Your task to perform on an android device: see sites visited before in the chrome app Image 0: 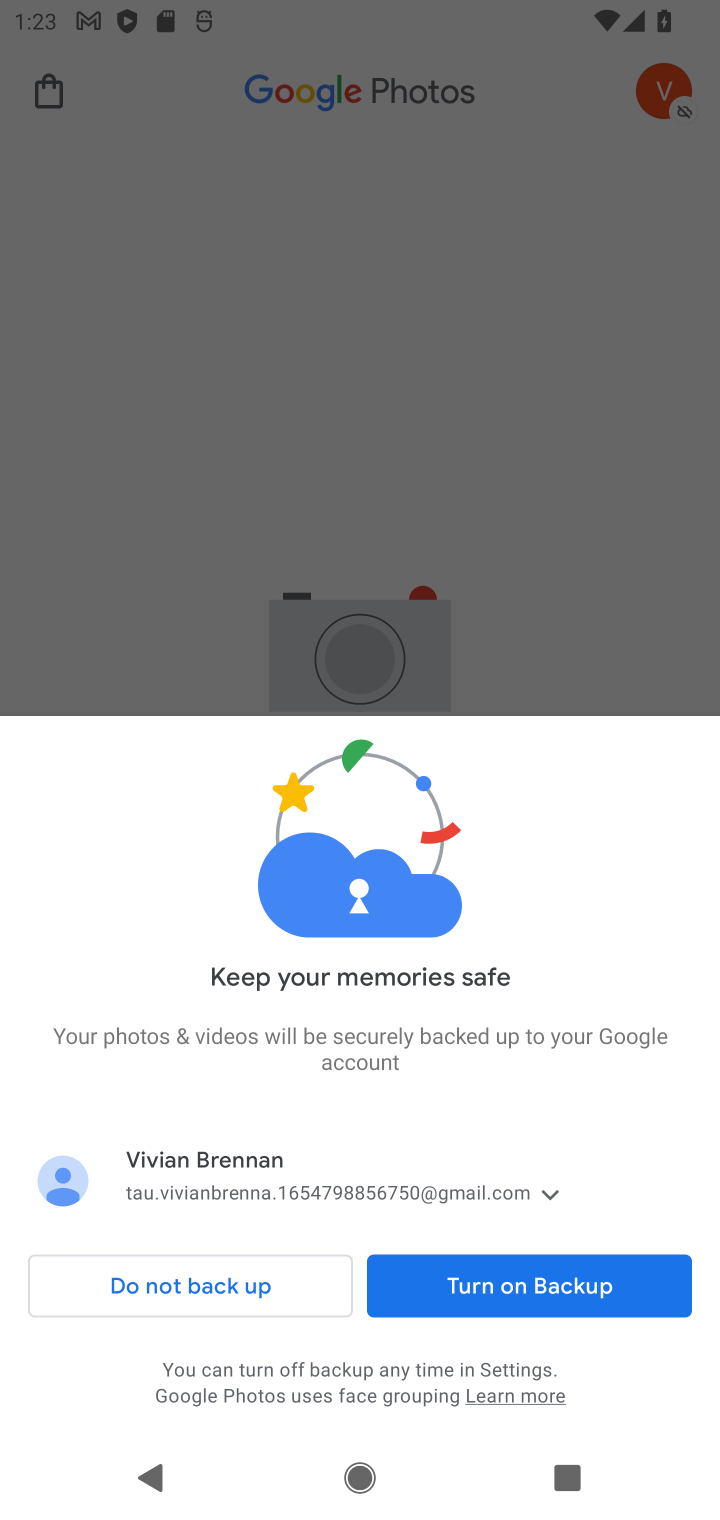
Step 0: press home button
Your task to perform on an android device: see sites visited before in the chrome app Image 1: 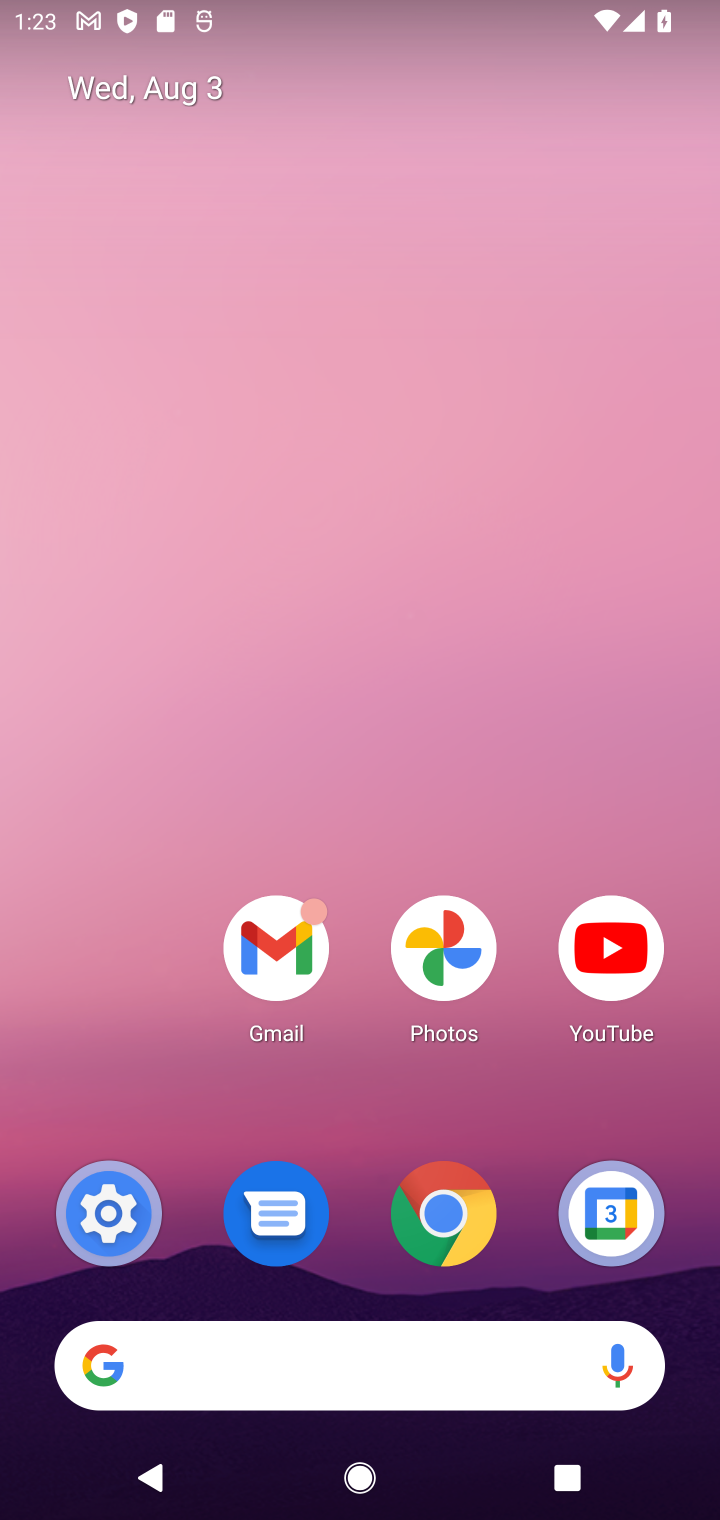
Step 1: drag from (447, 892) to (687, 68)
Your task to perform on an android device: see sites visited before in the chrome app Image 2: 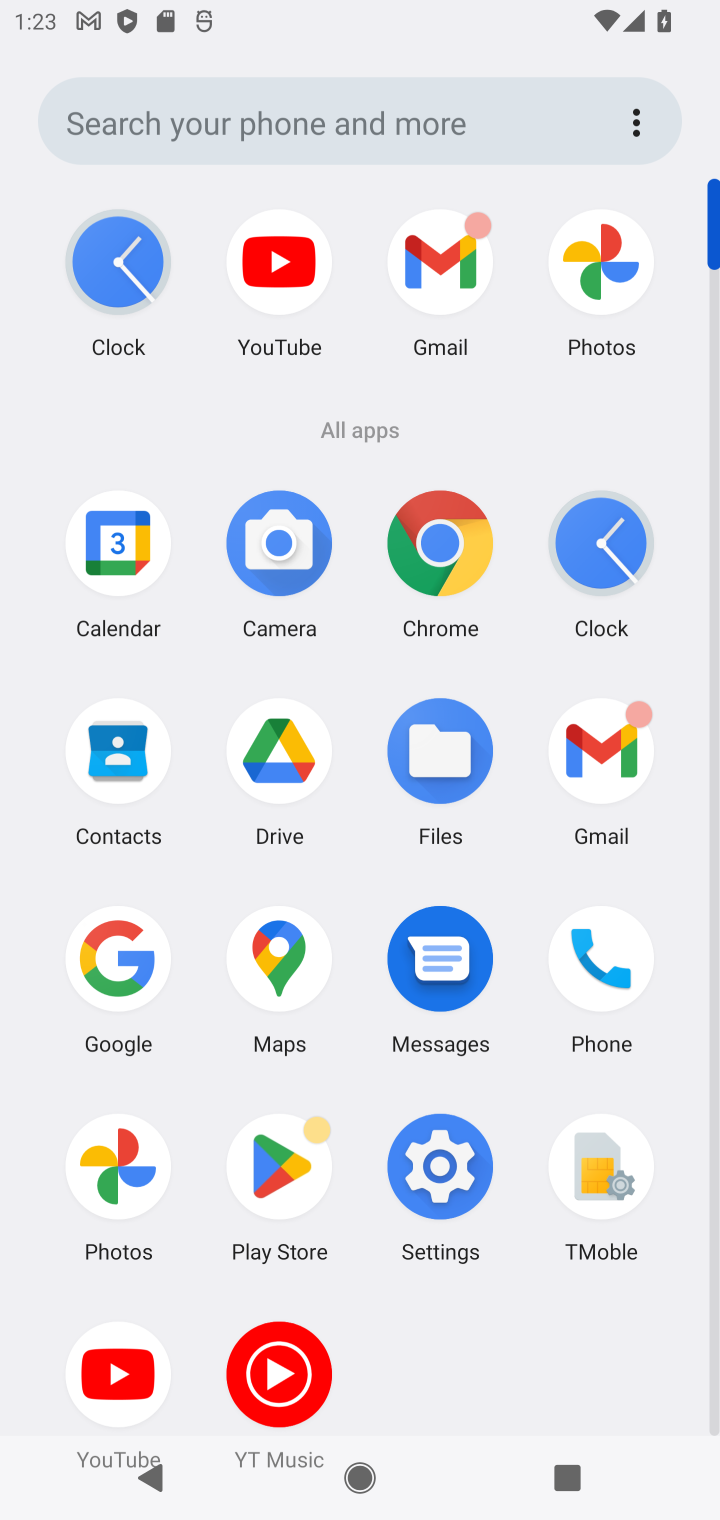
Step 2: click (458, 538)
Your task to perform on an android device: see sites visited before in the chrome app Image 3: 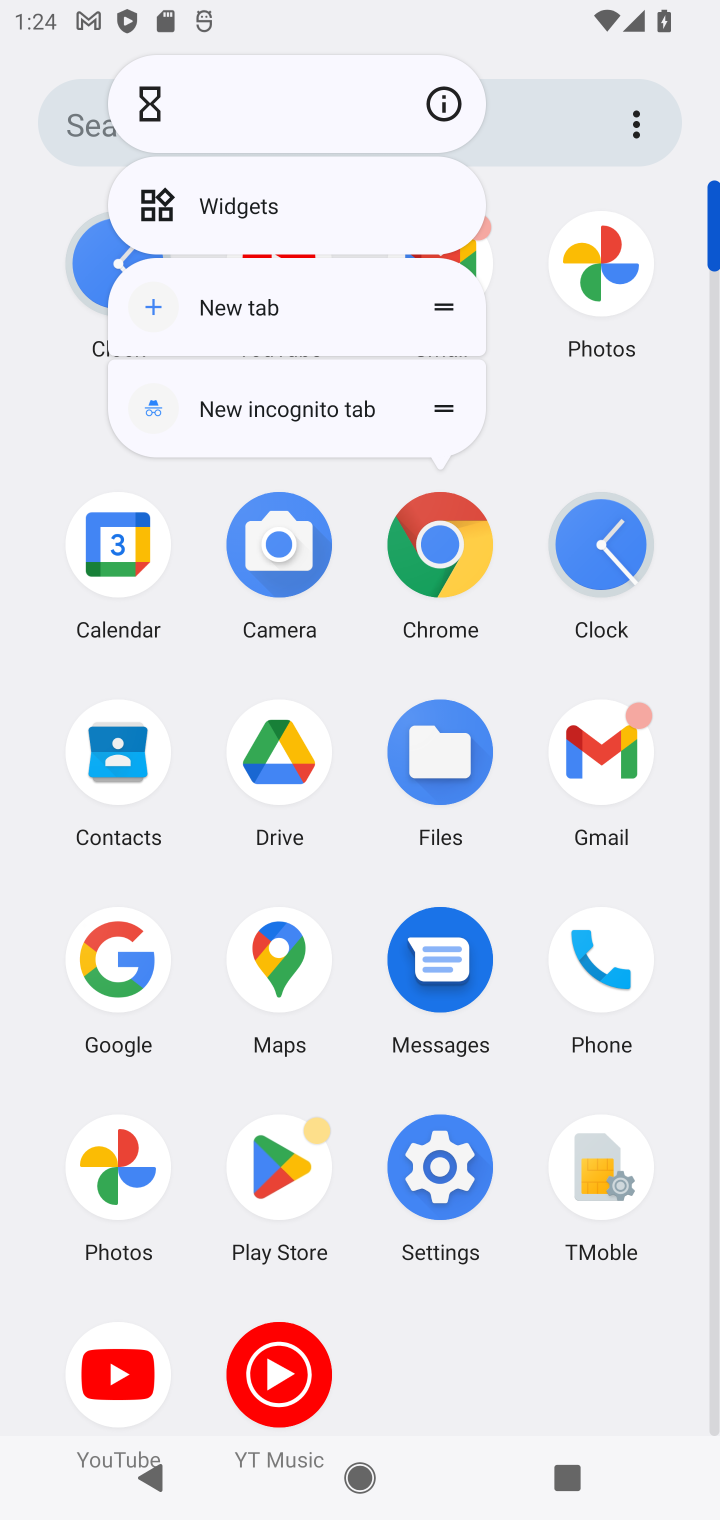
Step 3: click (418, 556)
Your task to perform on an android device: see sites visited before in the chrome app Image 4: 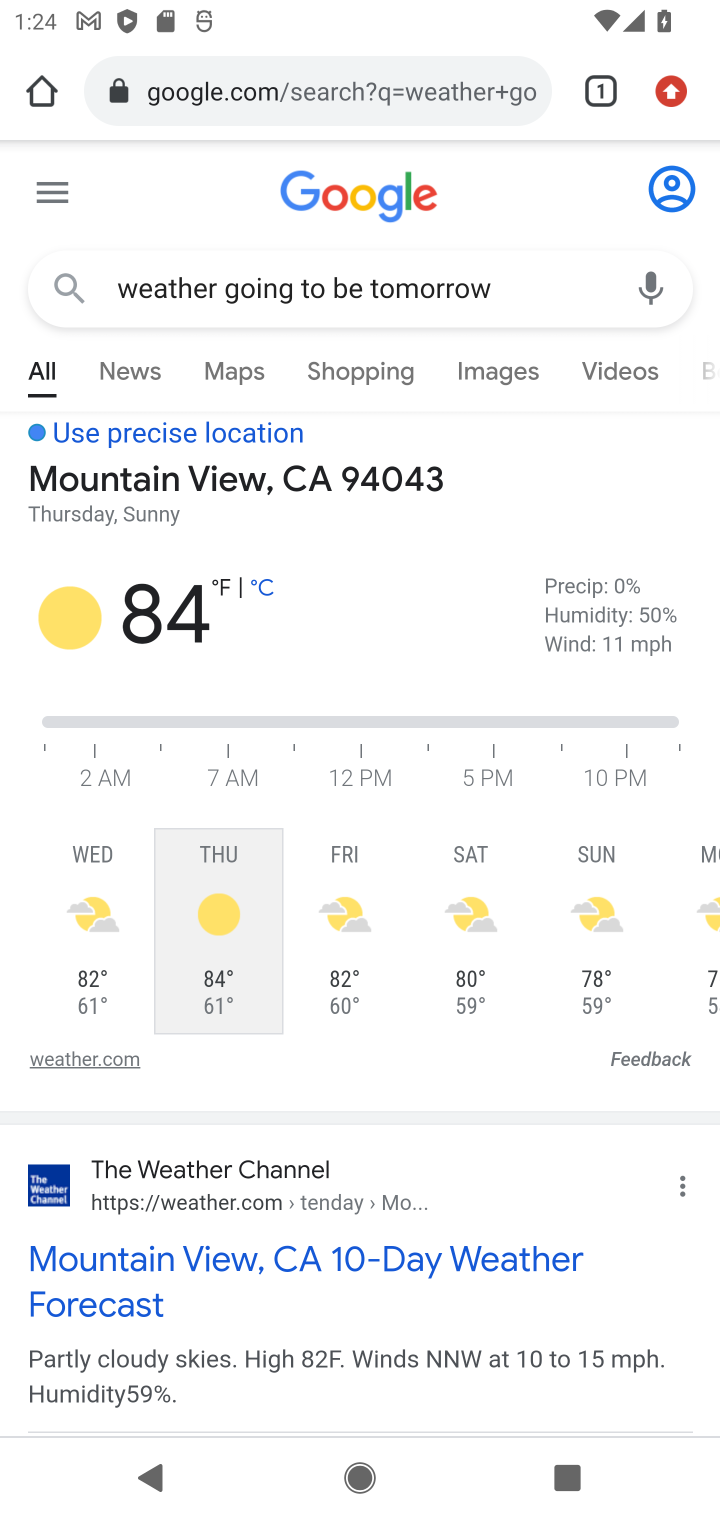
Step 4: click (660, 88)
Your task to perform on an android device: see sites visited before in the chrome app Image 5: 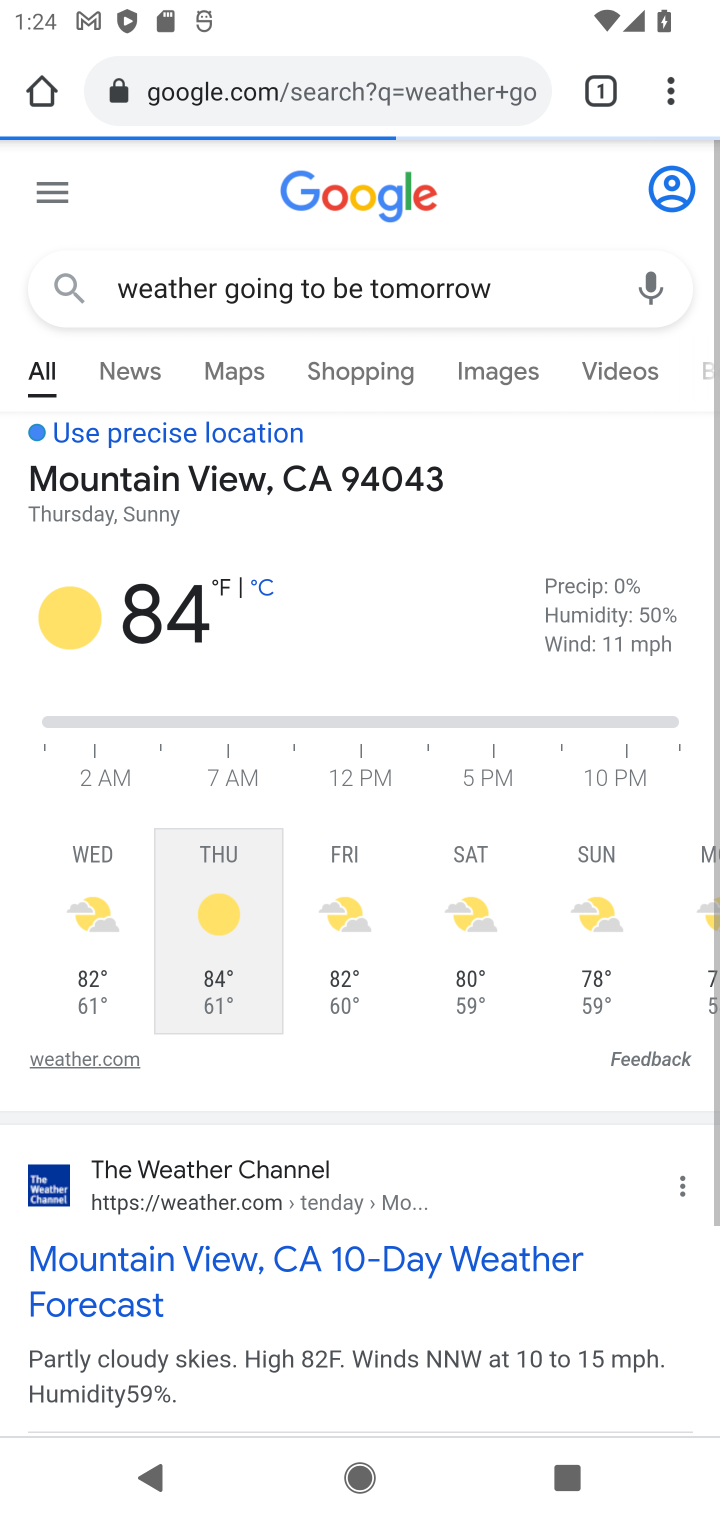
Step 5: click (670, 86)
Your task to perform on an android device: see sites visited before in the chrome app Image 6: 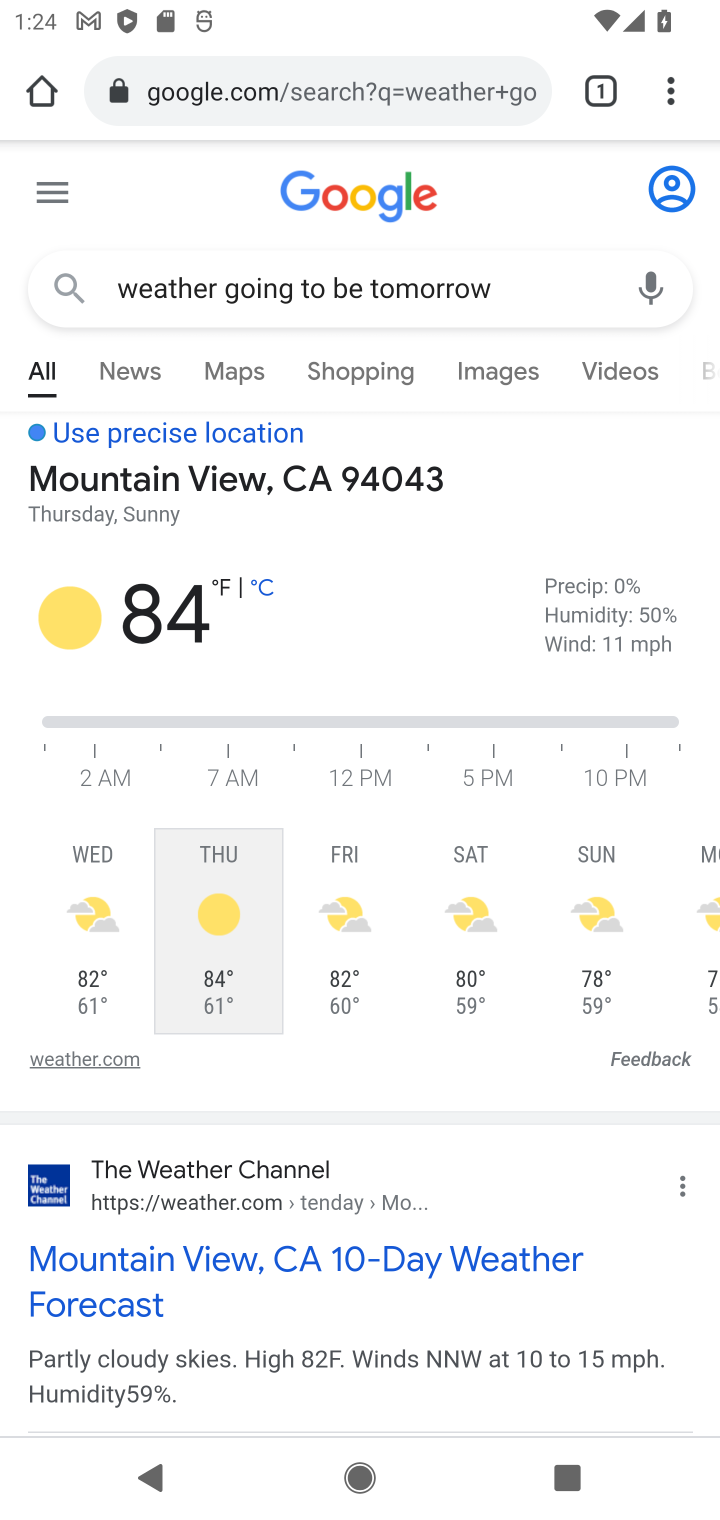
Step 6: click (666, 85)
Your task to perform on an android device: see sites visited before in the chrome app Image 7: 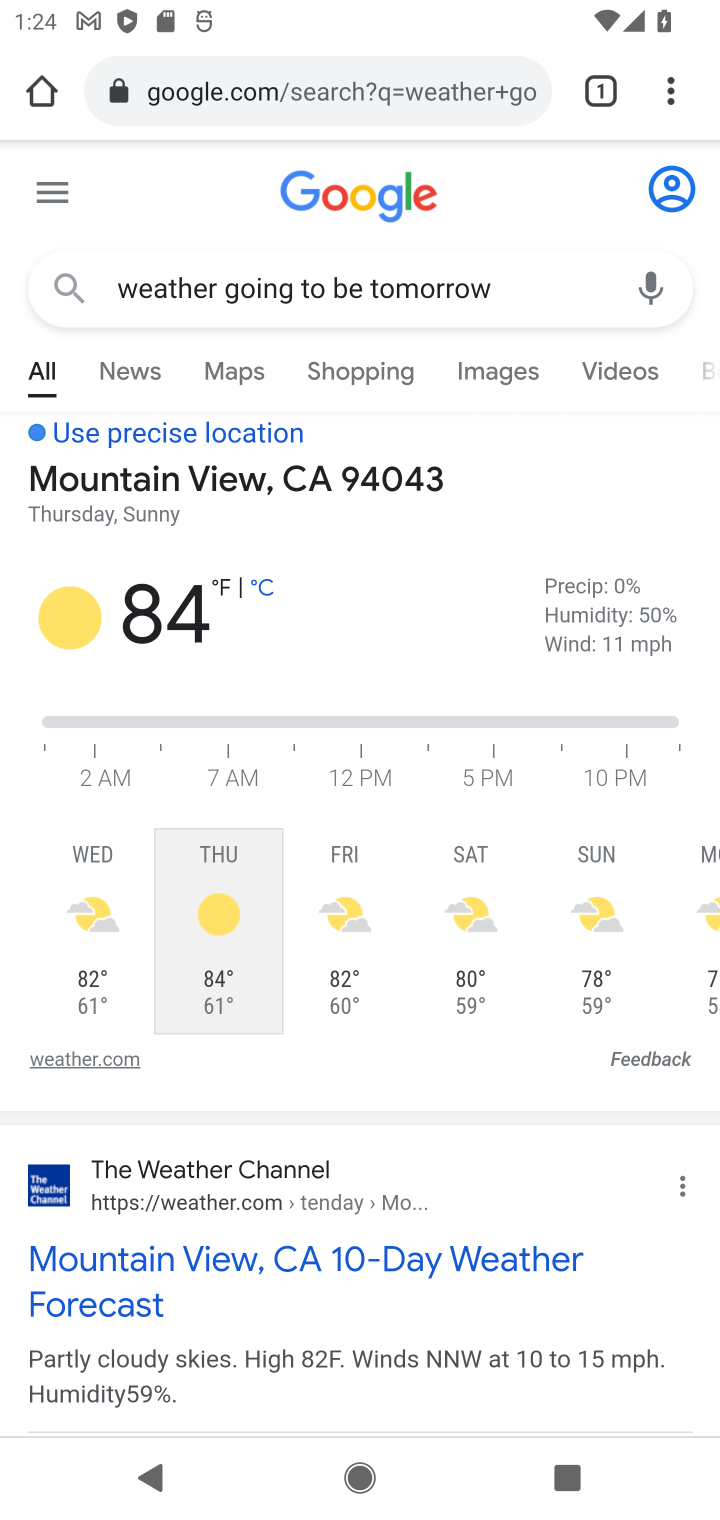
Step 7: drag from (668, 82) to (374, 713)
Your task to perform on an android device: see sites visited before in the chrome app Image 8: 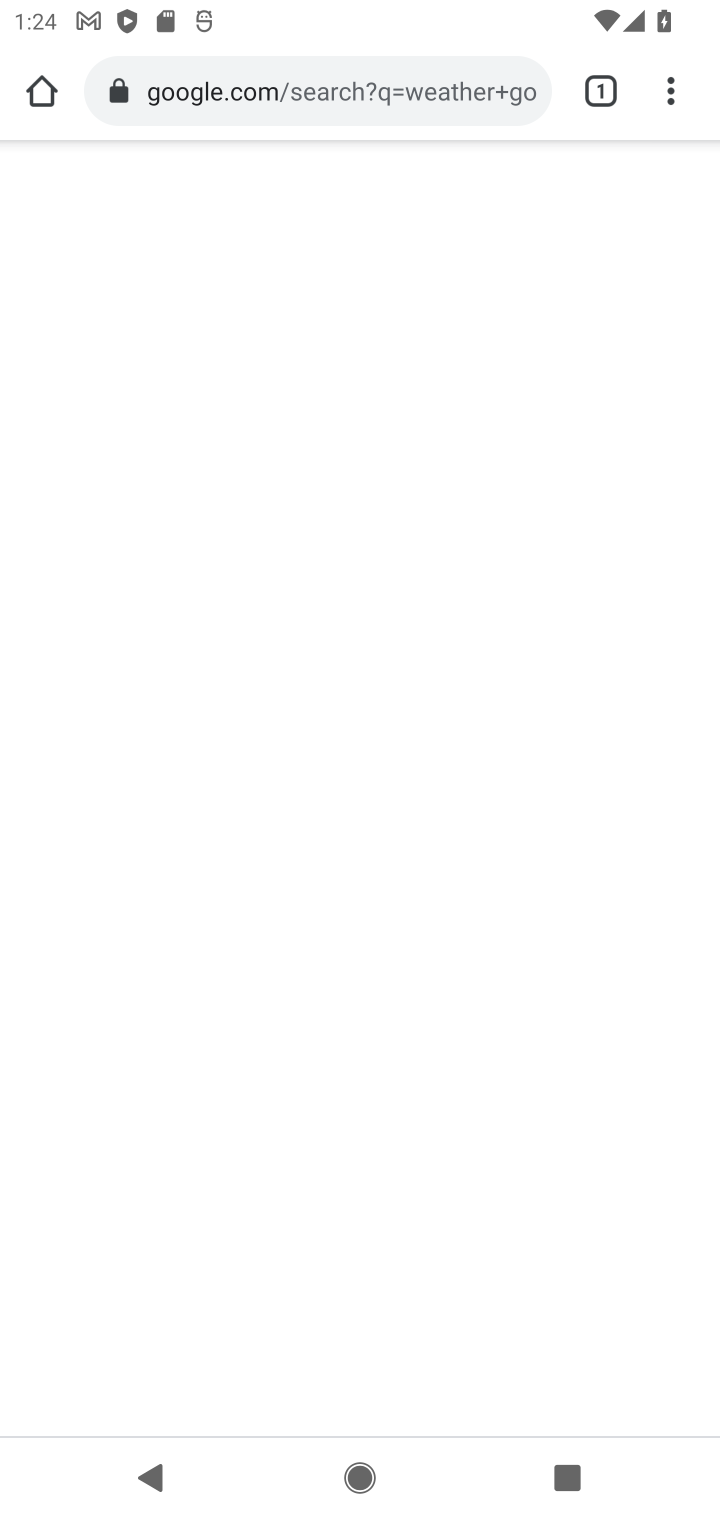
Step 8: click (374, 713)
Your task to perform on an android device: see sites visited before in the chrome app Image 9: 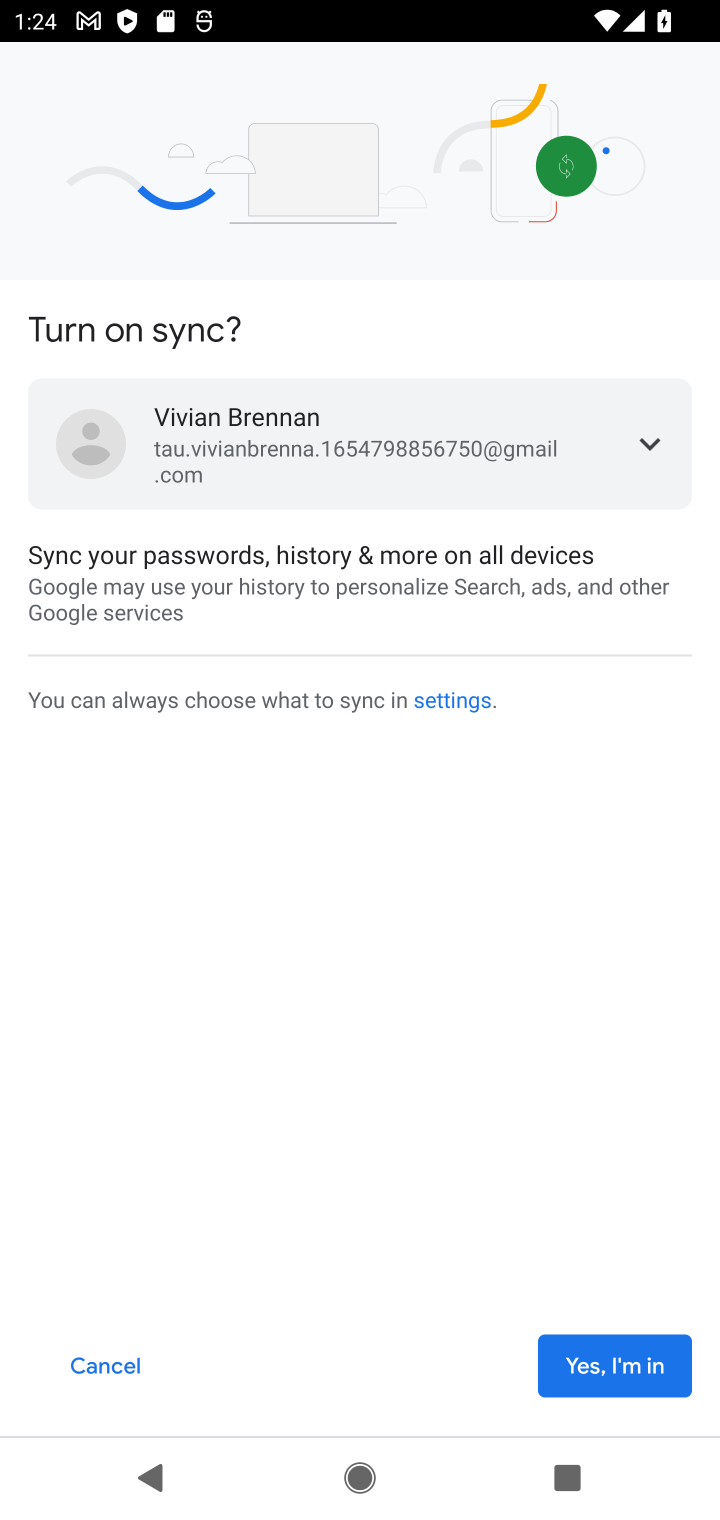
Step 9: task complete